Your task to perform on an android device: turn off data saver in the chrome app Image 0: 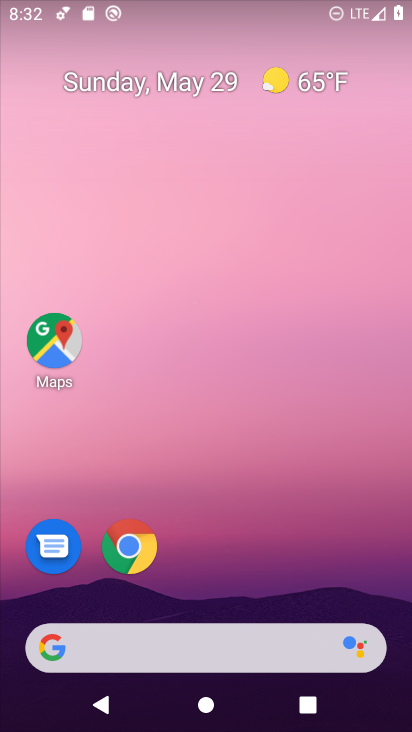
Step 0: click (134, 539)
Your task to perform on an android device: turn off data saver in the chrome app Image 1: 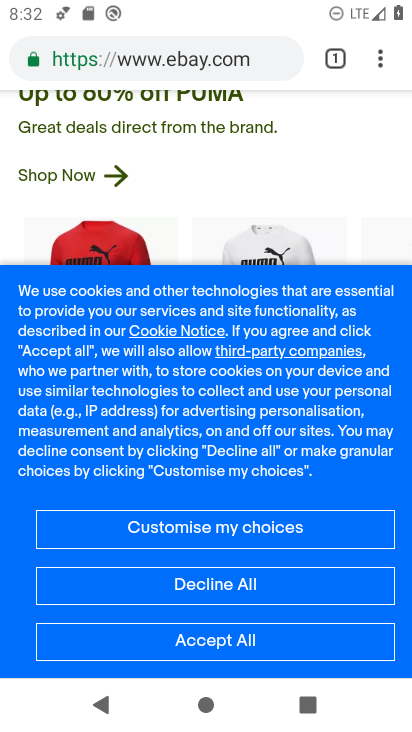
Step 1: click (384, 60)
Your task to perform on an android device: turn off data saver in the chrome app Image 2: 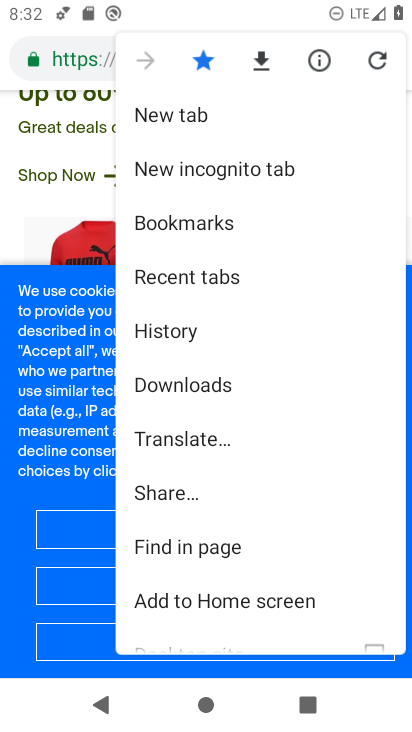
Step 2: drag from (195, 618) to (183, 240)
Your task to perform on an android device: turn off data saver in the chrome app Image 3: 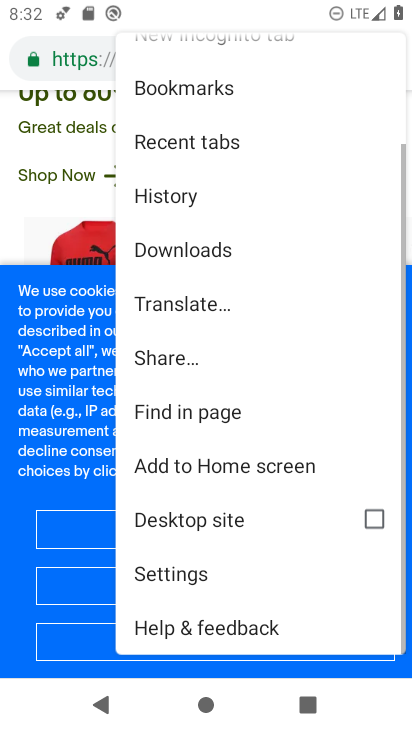
Step 3: click (186, 576)
Your task to perform on an android device: turn off data saver in the chrome app Image 4: 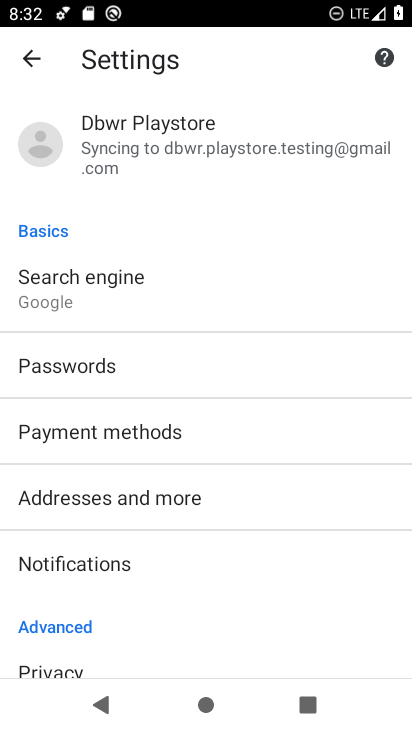
Step 4: drag from (127, 649) to (98, 313)
Your task to perform on an android device: turn off data saver in the chrome app Image 5: 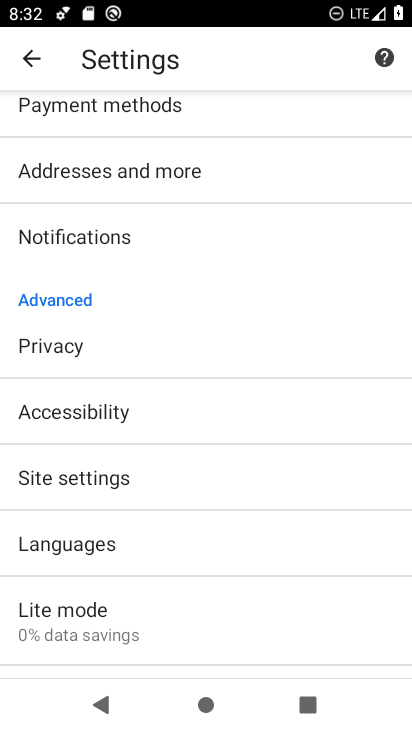
Step 5: click (53, 614)
Your task to perform on an android device: turn off data saver in the chrome app Image 6: 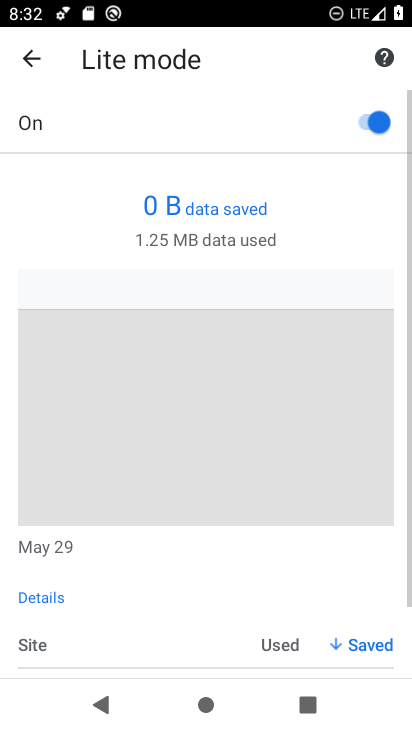
Step 6: click (360, 118)
Your task to perform on an android device: turn off data saver in the chrome app Image 7: 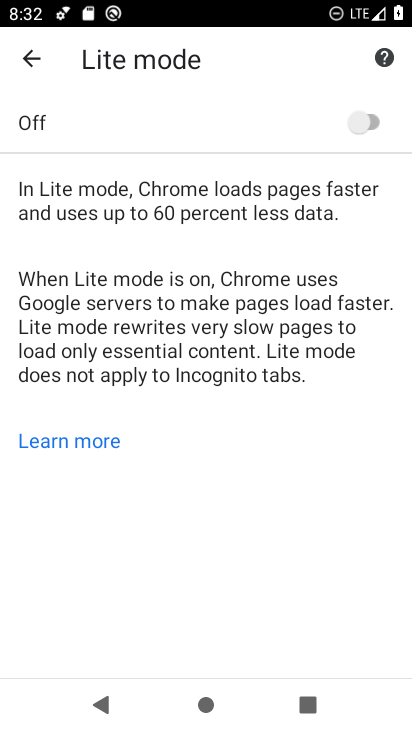
Step 7: task complete